Your task to perform on an android device: Turn off the flashlight Image 0: 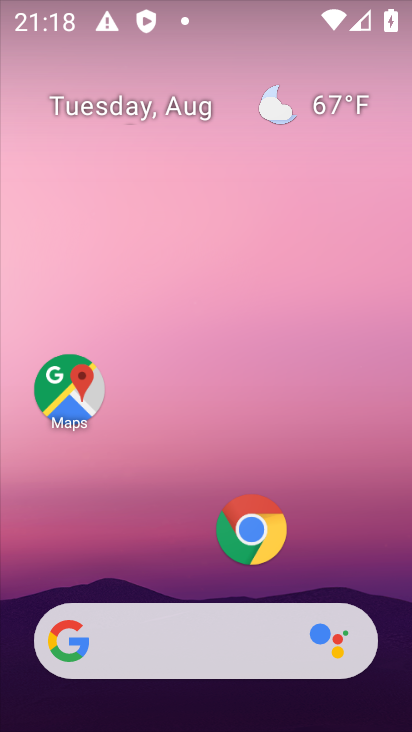
Step 0: click (252, 199)
Your task to perform on an android device: Turn off the flashlight Image 1: 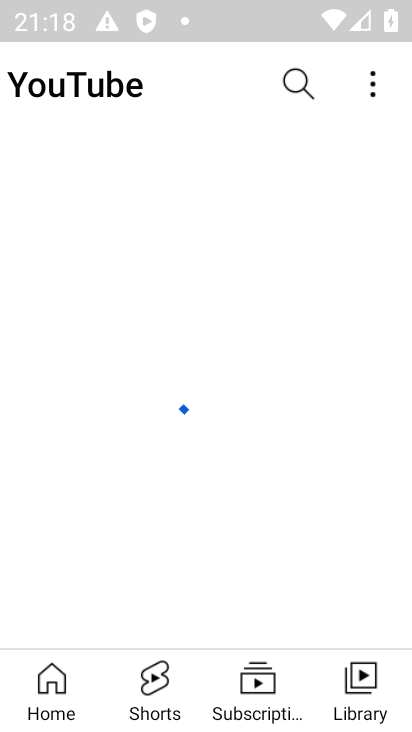
Step 1: press home button
Your task to perform on an android device: Turn off the flashlight Image 2: 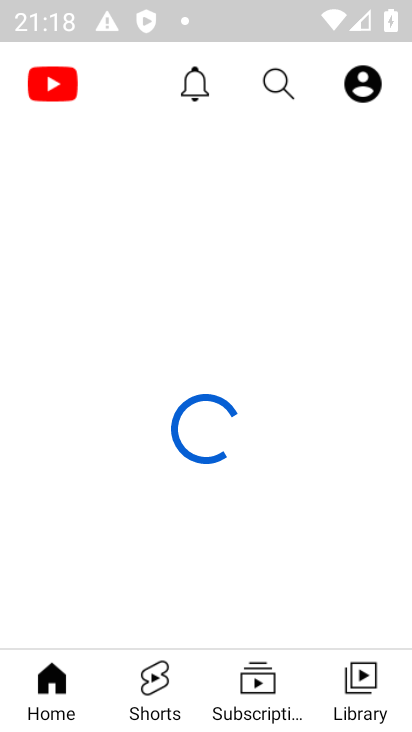
Step 2: drag from (202, 605) to (256, 91)
Your task to perform on an android device: Turn off the flashlight Image 3: 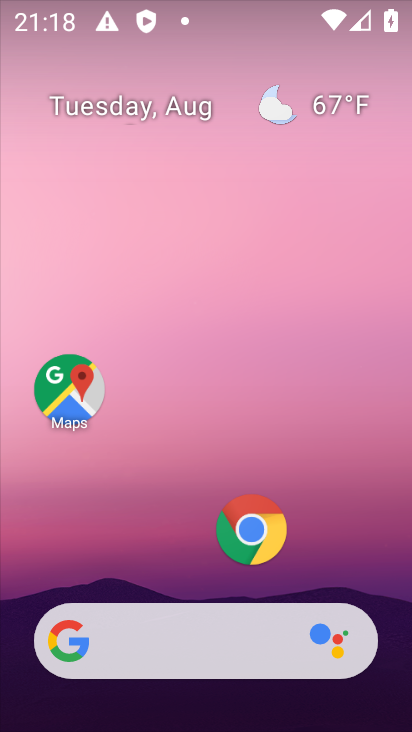
Step 3: drag from (202, 566) to (254, 64)
Your task to perform on an android device: Turn off the flashlight Image 4: 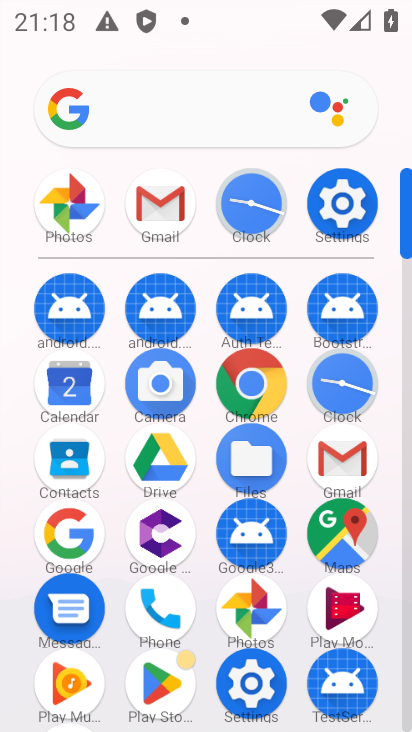
Step 4: drag from (207, 506) to (220, 208)
Your task to perform on an android device: Turn off the flashlight Image 5: 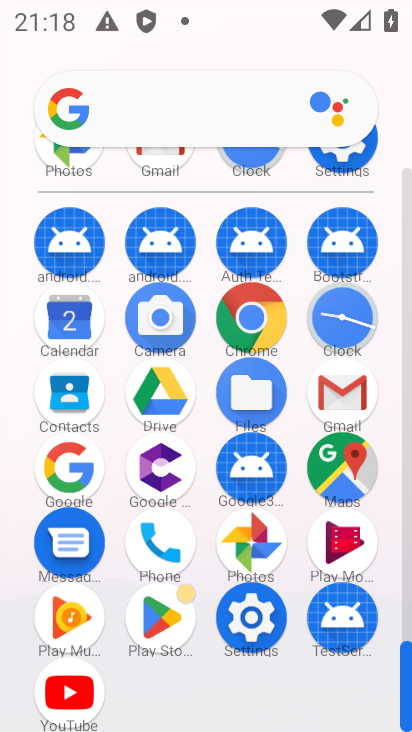
Step 5: drag from (202, 579) to (184, 192)
Your task to perform on an android device: Turn off the flashlight Image 6: 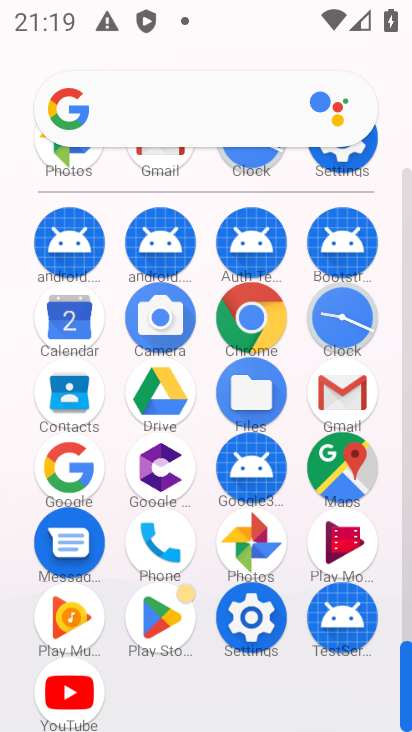
Step 6: drag from (199, 191) to (241, 584)
Your task to perform on an android device: Turn off the flashlight Image 7: 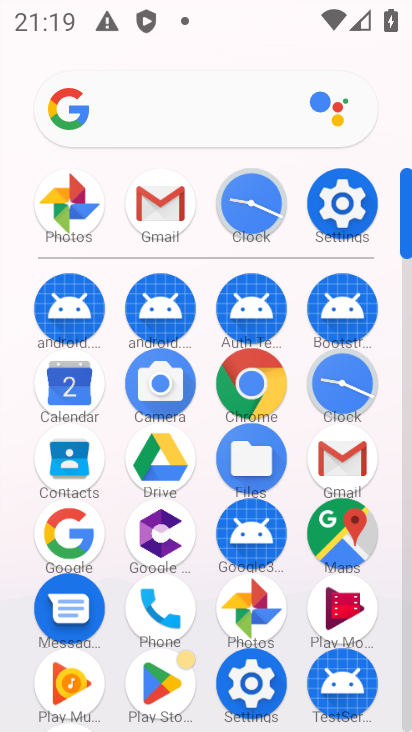
Step 7: drag from (196, 612) to (197, 301)
Your task to perform on an android device: Turn off the flashlight Image 8: 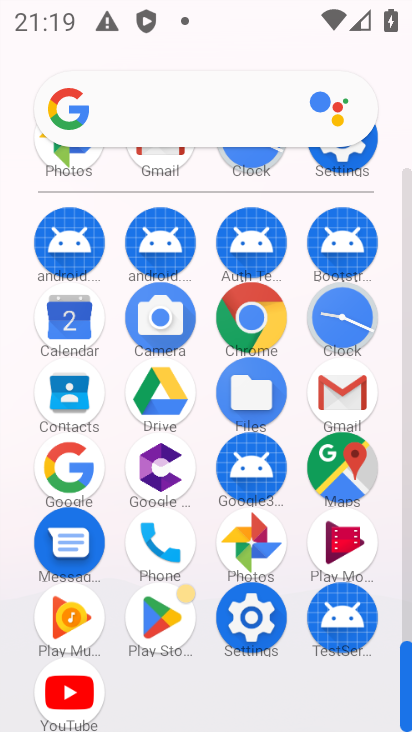
Step 8: click (251, 622)
Your task to perform on an android device: Turn off the flashlight Image 9: 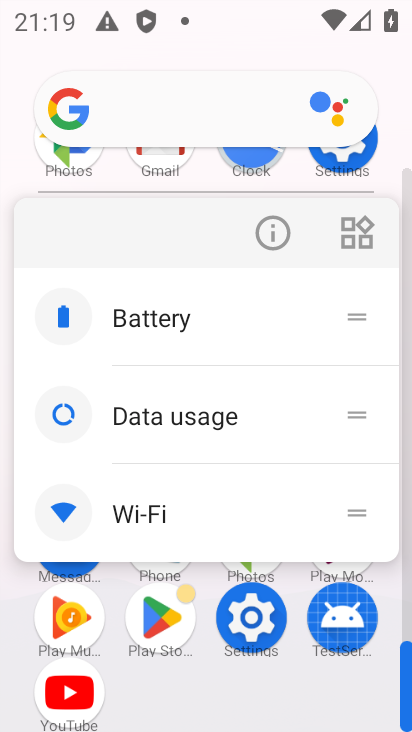
Step 9: click (279, 236)
Your task to perform on an android device: Turn off the flashlight Image 10: 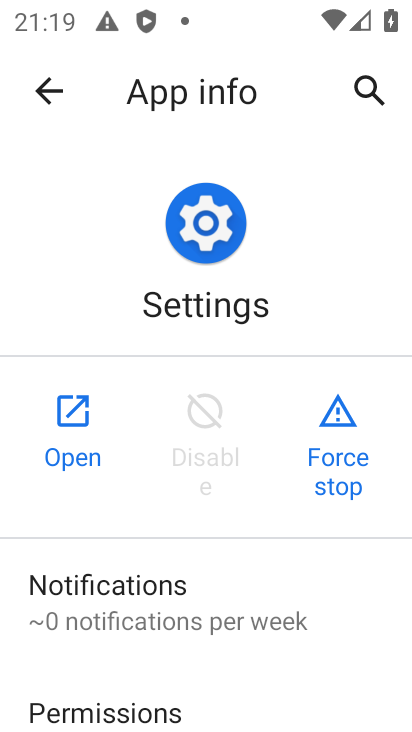
Step 10: click (83, 433)
Your task to perform on an android device: Turn off the flashlight Image 11: 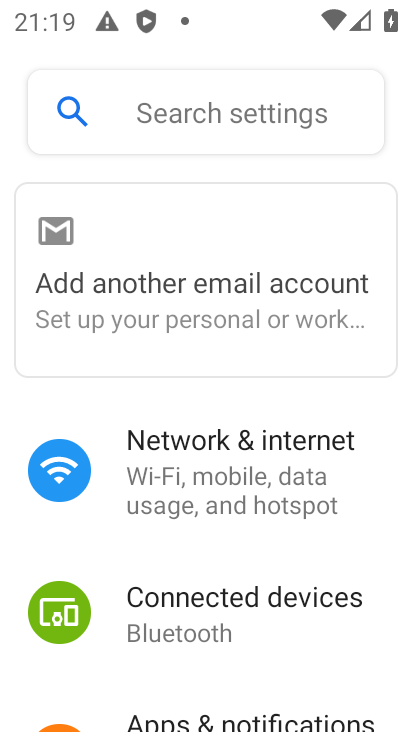
Step 11: drag from (233, 643) to (281, 315)
Your task to perform on an android device: Turn off the flashlight Image 12: 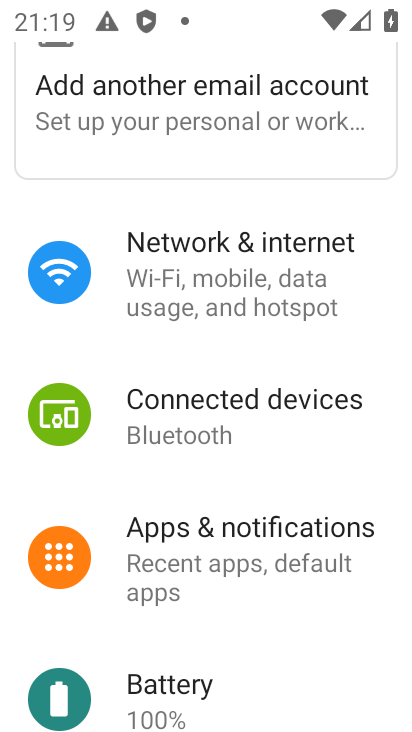
Step 12: drag from (207, 572) to (240, 251)
Your task to perform on an android device: Turn off the flashlight Image 13: 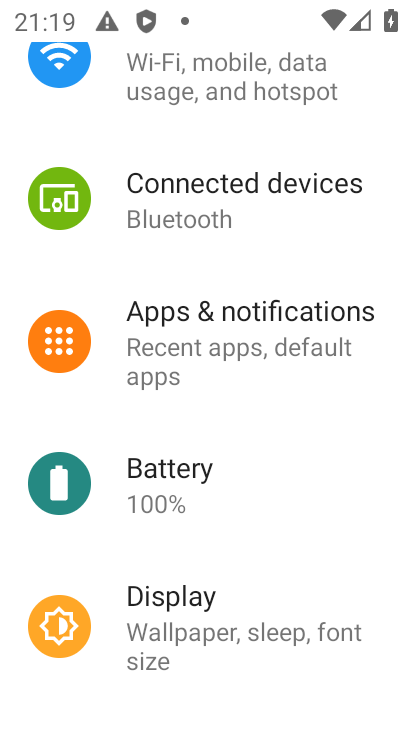
Step 13: drag from (238, 660) to (259, 321)
Your task to perform on an android device: Turn off the flashlight Image 14: 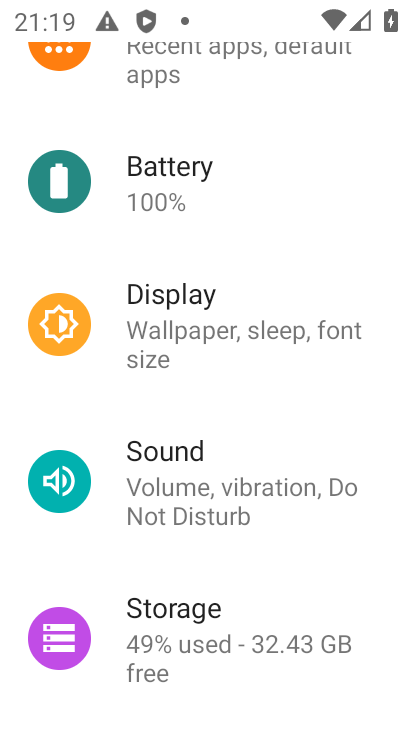
Step 14: drag from (218, 621) to (226, 255)
Your task to perform on an android device: Turn off the flashlight Image 15: 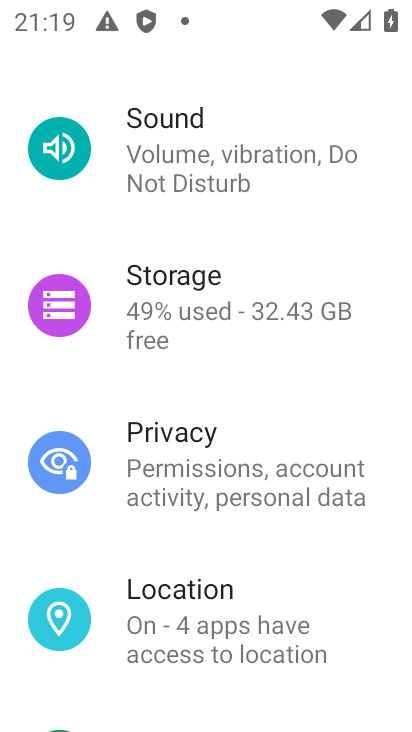
Step 15: drag from (212, 612) to (339, 473)
Your task to perform on an android device: Turn off the flashlight Image 16: 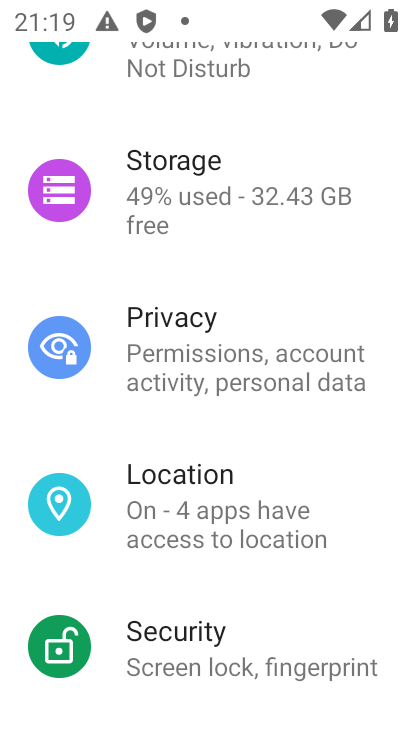
Step 16: drag from (200, 126) to (360, 721)
Your task to perform on an android device: Turn off the flashlight Image 17: 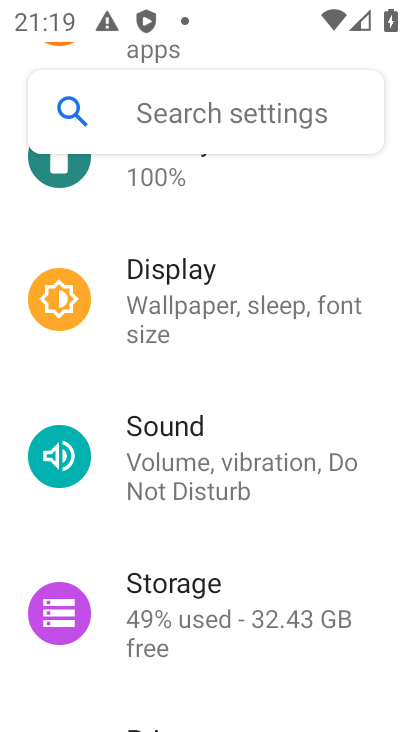
Step 17: click (171, 115)
Your task to perform on an android device: Turn off the flashlight Image 18: 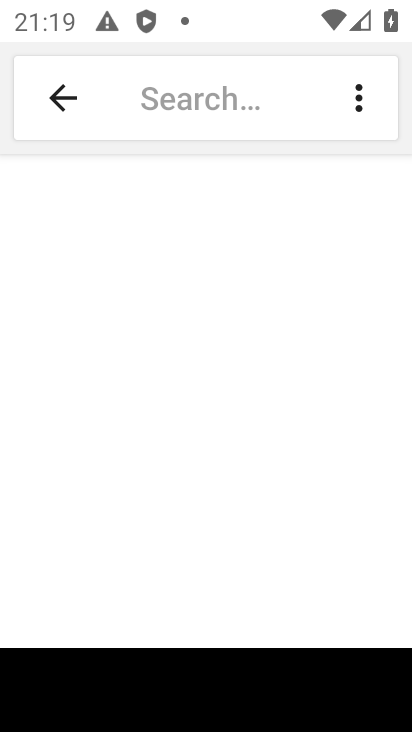
Step 18: type "flashlight"
Your task to perform on an android device: Turn off the flashlight Image 19: 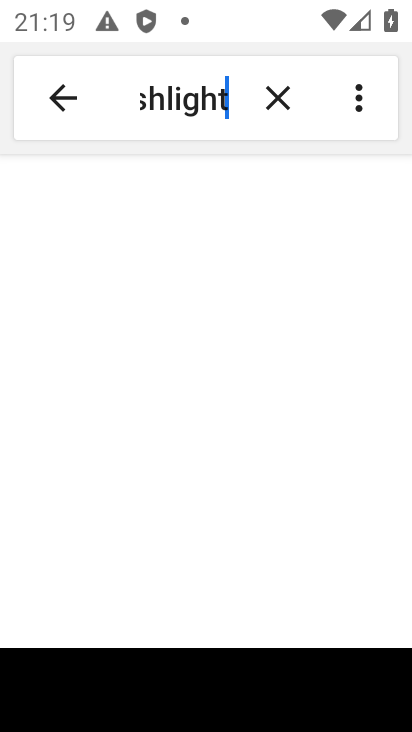
Step 19: type ""
Your task to perform on an android device: Turn off the flashlight Image 20: 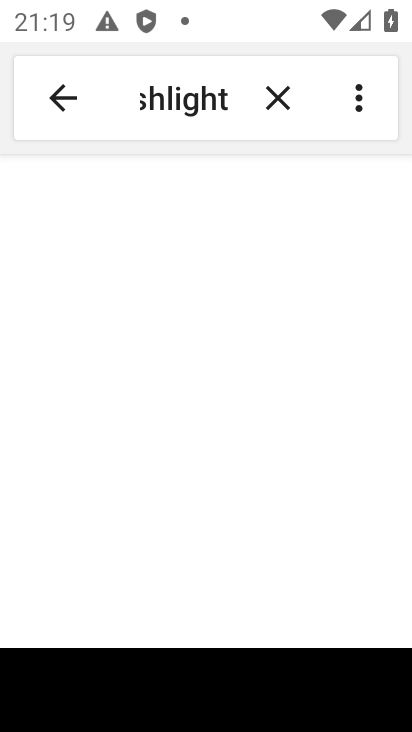
Step 20: click (186, 189)
Your task to perform on an android device: Turn off the flashlight Image 21: 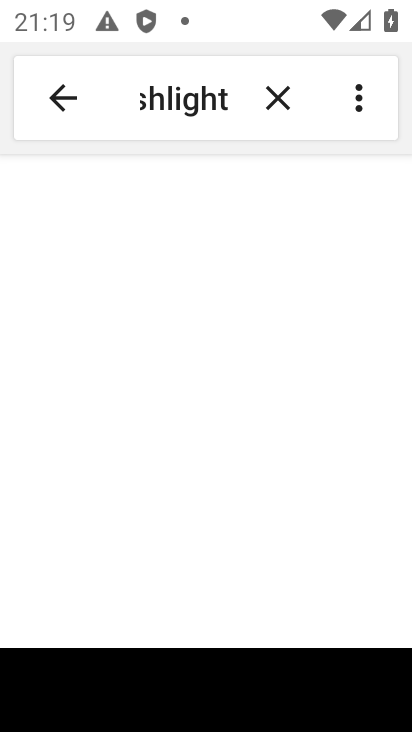
Step 21: click (184, 187)
Your task to perform on an android device: Turn off the flashlight Image 22: 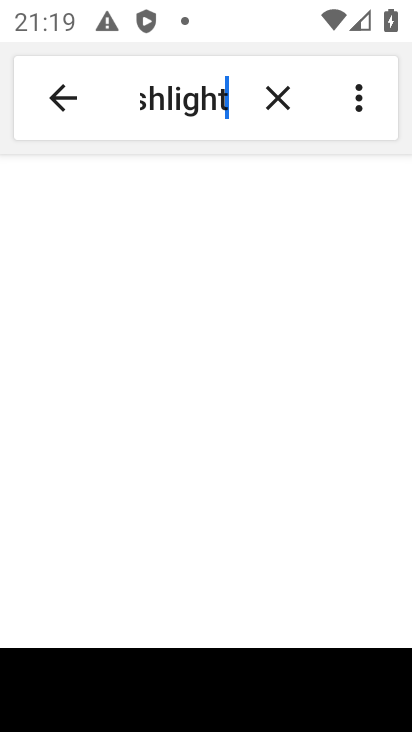
Step 22: click (184, 187)
Your task to perform on an android device: Turn off the flashlight Image 23: 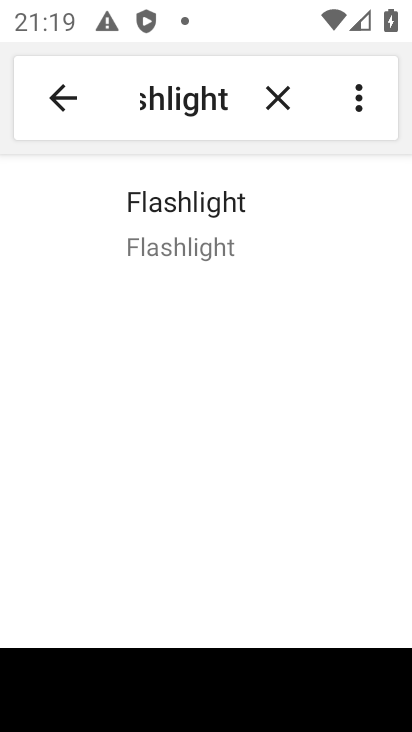
Step 23: click (190, 187)
Your task to perform on an android device: Turn off the flashlight Image 24: 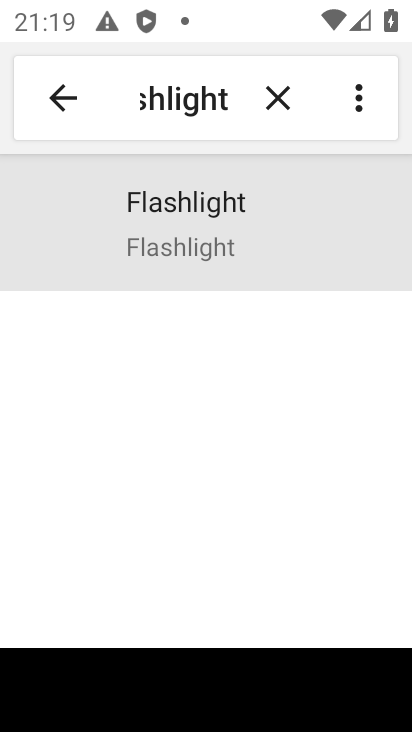
Step 24: click (190, 186)
Your task to perform on an android device: Turn off the flashlight Image 25: 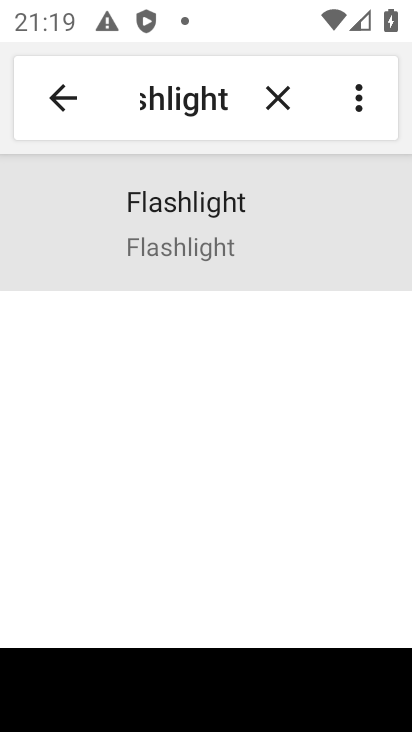
Step 25: click (206, 206)
Your task to perform on an android device: Turn off the flashlight Image 26: 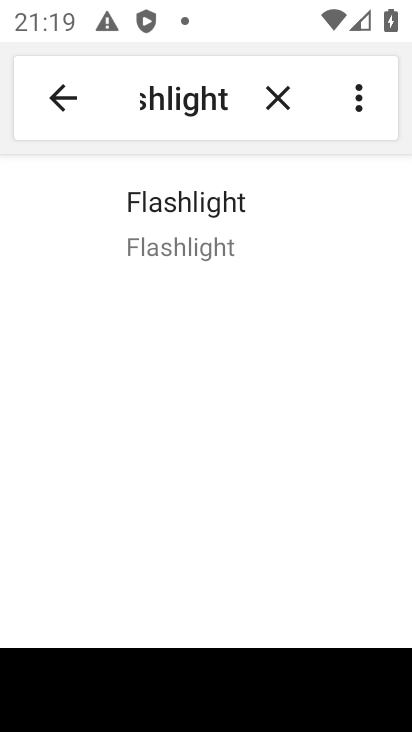
Step 26: task complete